Your task to perform on an android device: Open Google Chrome Image 0: 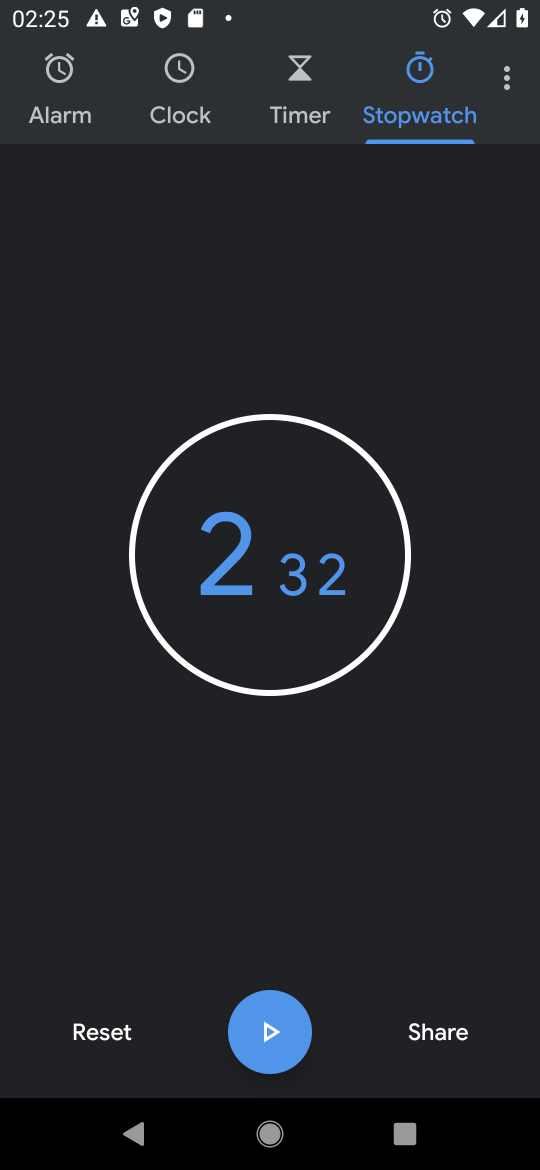
Step 0: press home button
Your task to perform on an android device: Open Google Chrome Image 1: 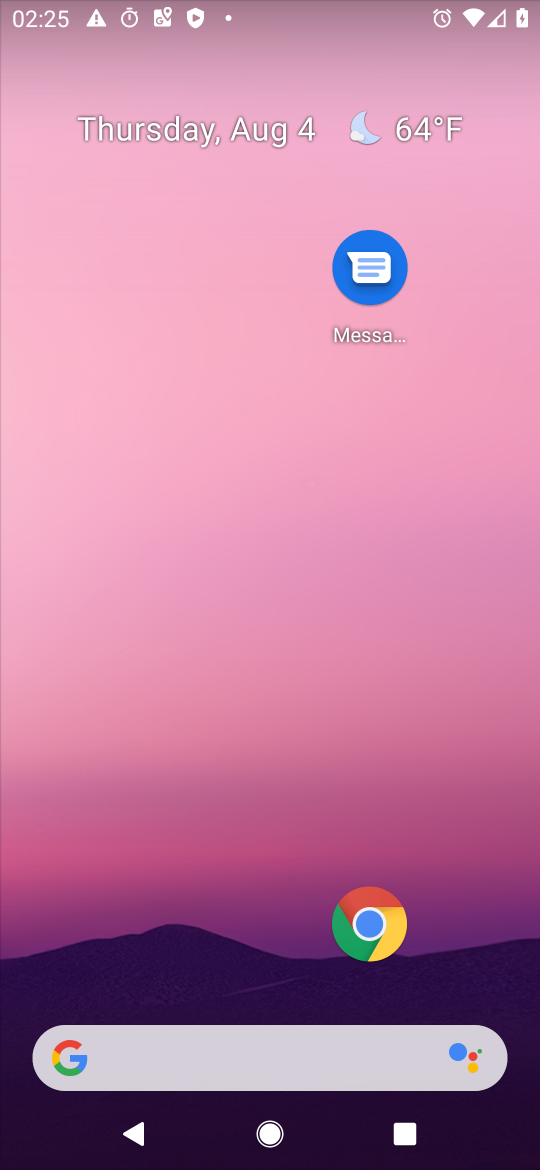
Step 1: click (373, 925)
Your task to perform on an android device: Open Google Chrome Image 2: 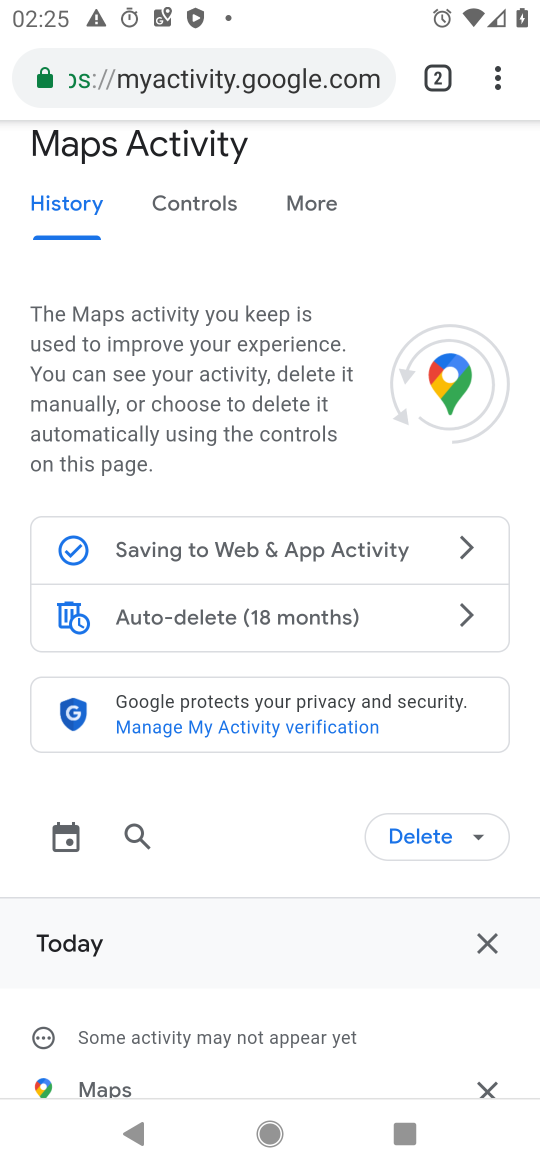
Step 2: task complete